Your task to perform on an android device: allow cookies in the chrome app Image 0: 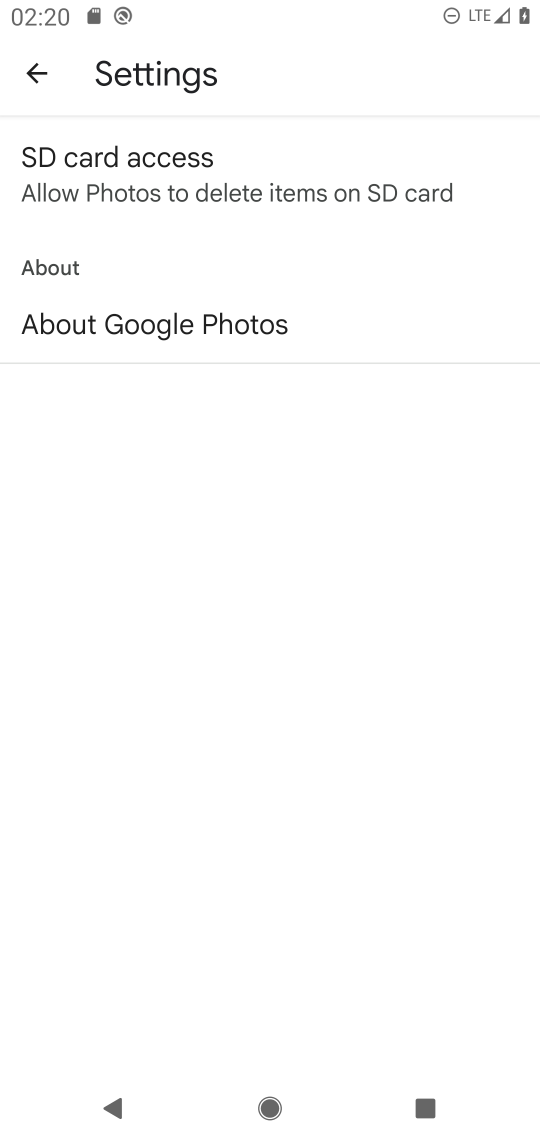
Step 0: press home button
Your task to perform on an android device: allow cookies in the chrome app Image 1: 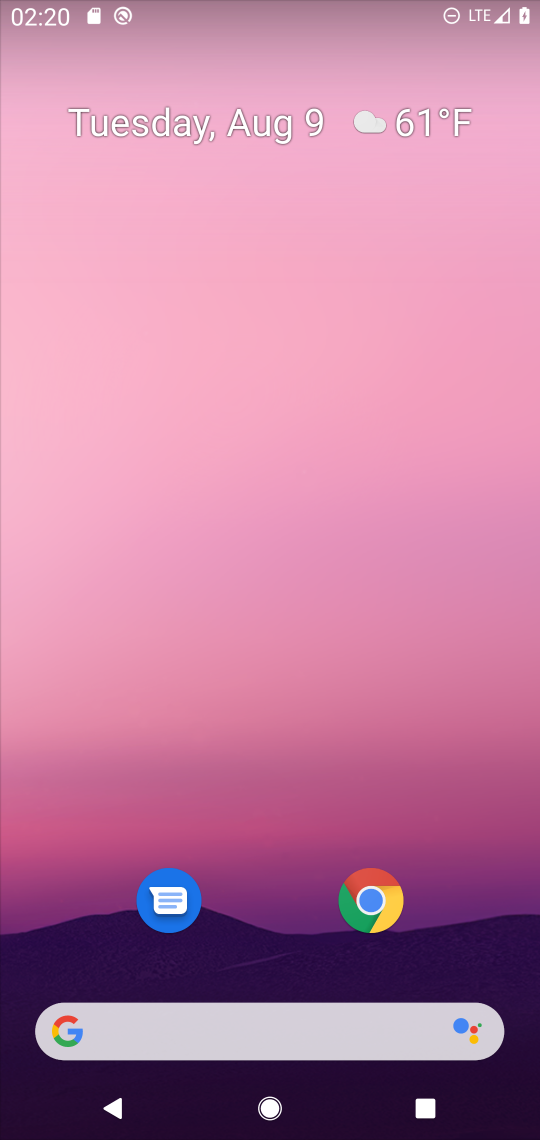
Step 1: drag from (265, 953) to (287, 188)
Your task to perform on an android device: allow cookies in the chrome app Image 2: 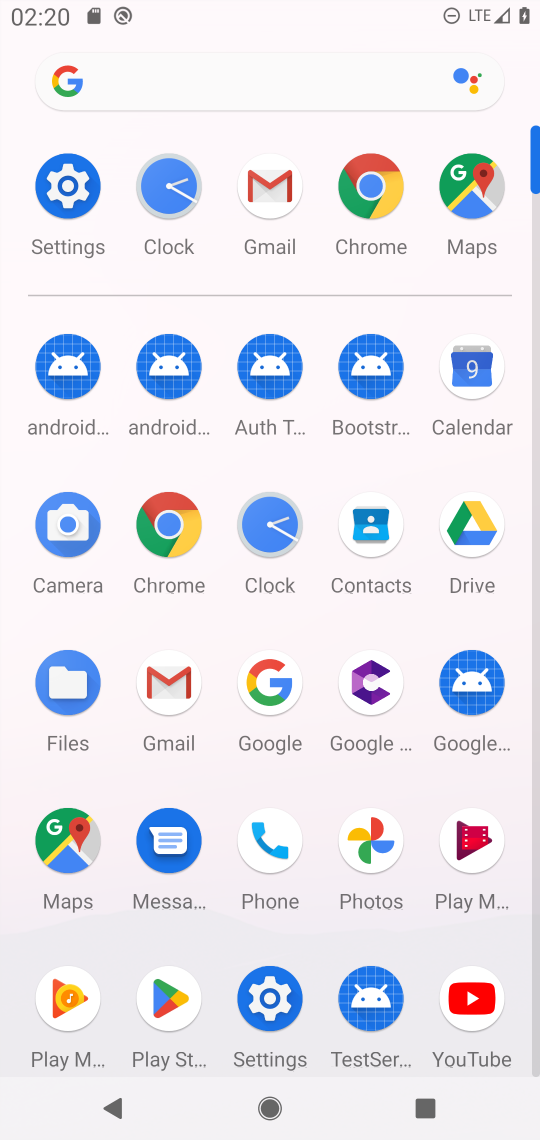
Step 2: click (163, 525)
Your task to perform on an android device: allow cookies in the chrome app Image 3: 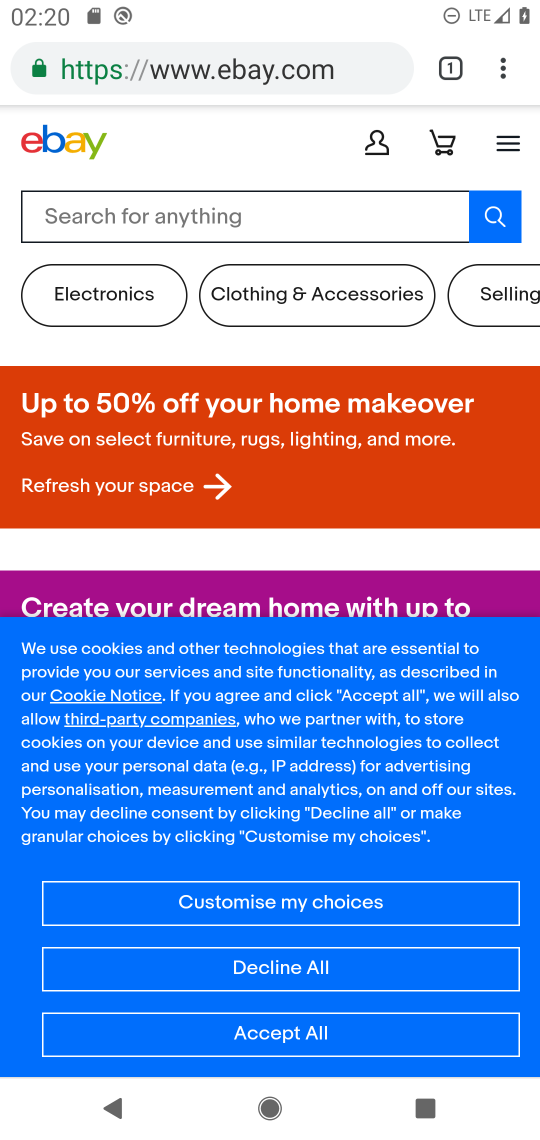
Step 3: click (505, 73)
Your task to perform on an android device: allow cookies in the chrome app Image 4: 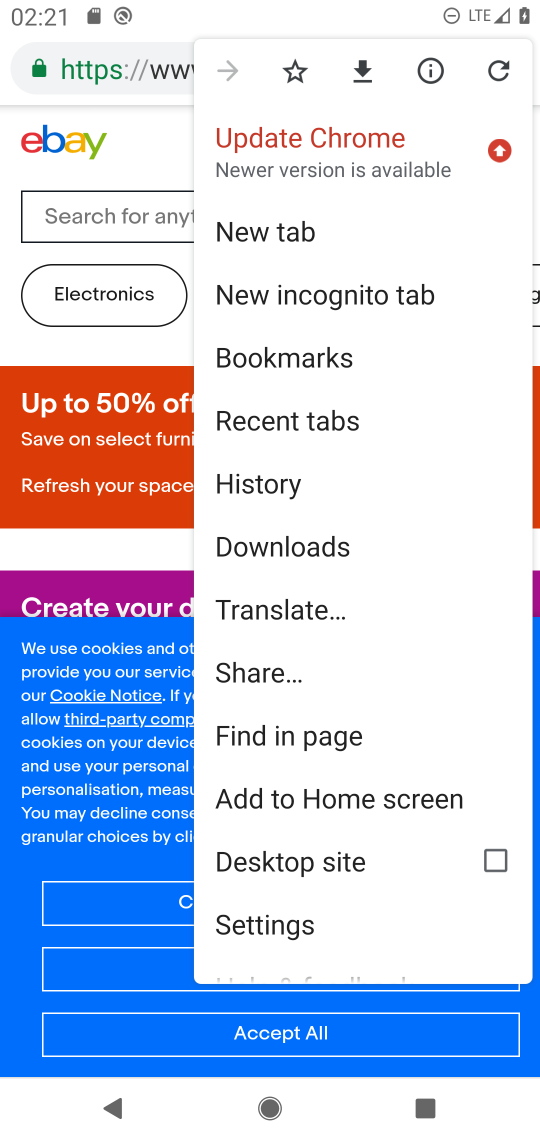
Step 4: click (270, 918)
Your task to perform on an android device: allow cookies in the chrome app Image 5: 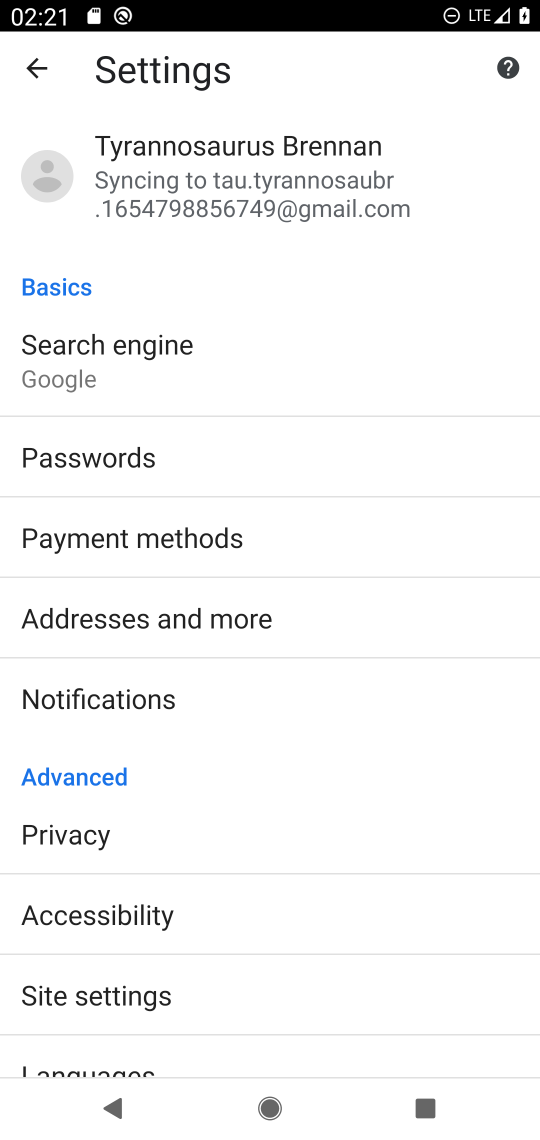
Step 5: drag from (322, 789) to (368, 561)
Your task to perform on an android device: allow cookies in the chrome app Image 6: 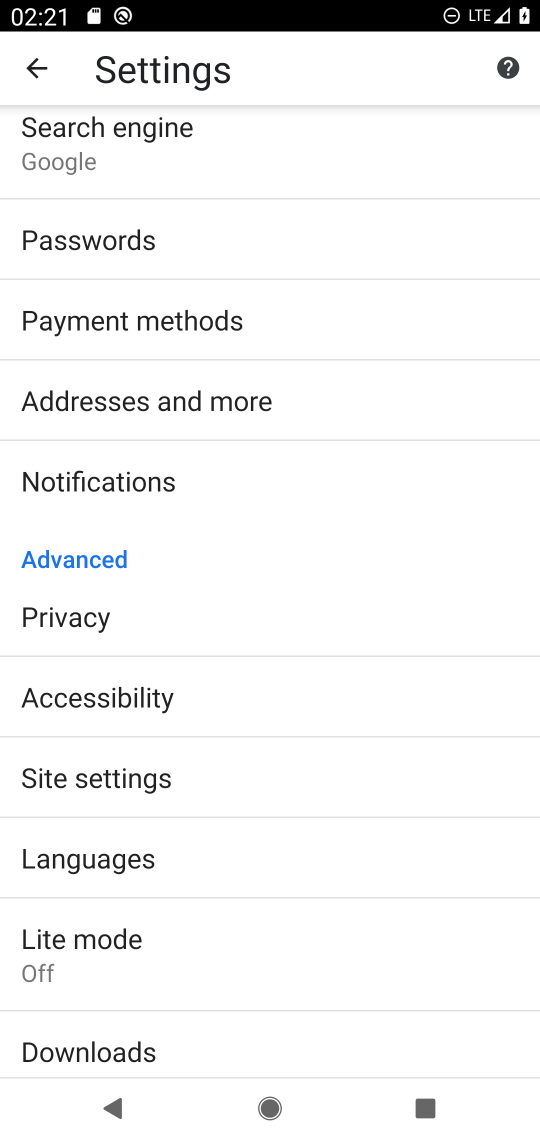
Step 6: click (370, 761)
Your task to perform on an android device: allow cookies in the chrome app Image 7: 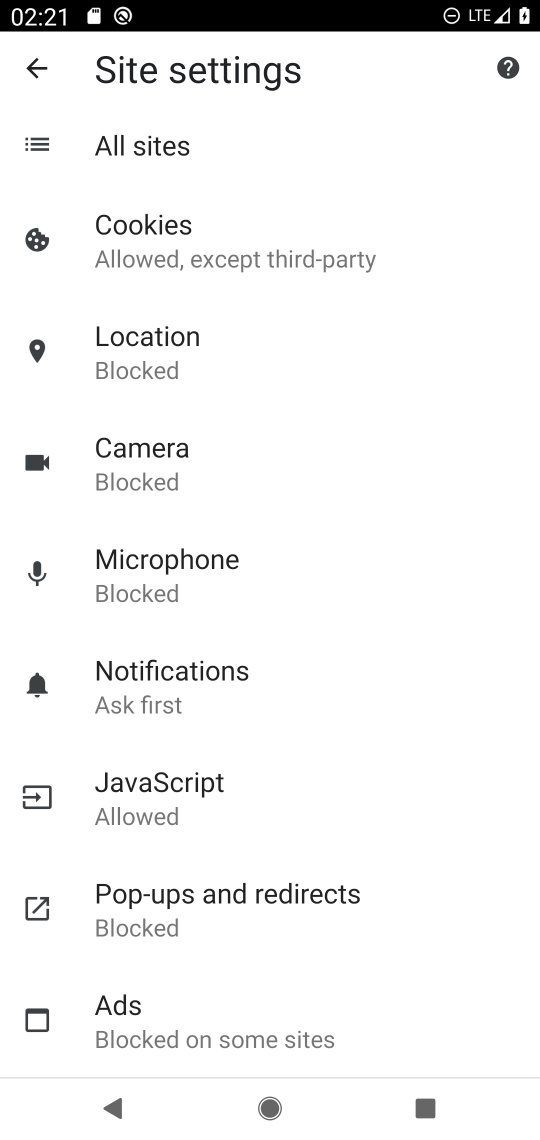
Step 7: drag from (448, 942) to (439, 697)
Your task to perform on an android device: allow cookies in the chrome app Image 8: 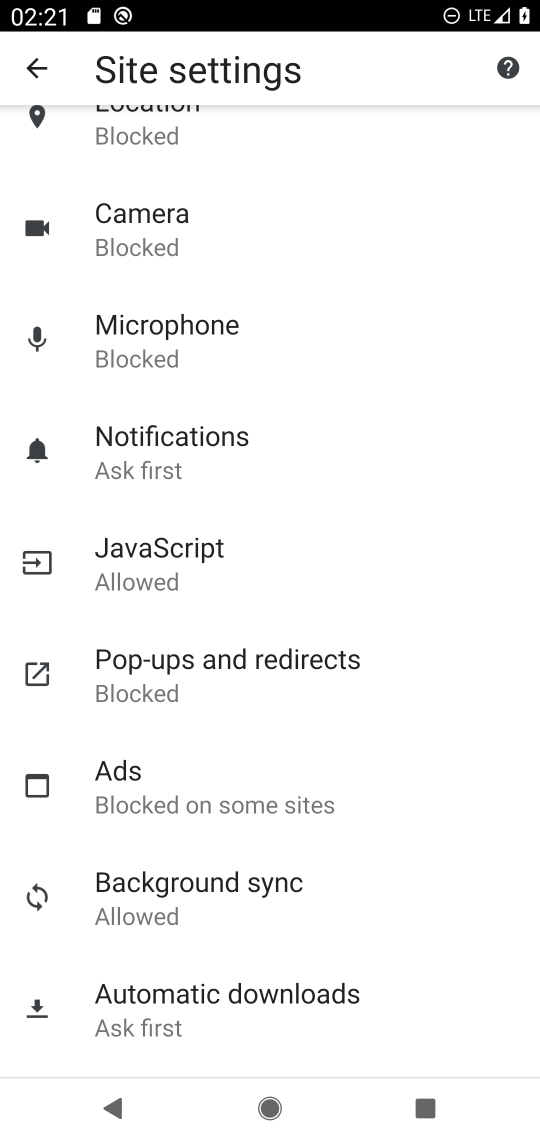
Step 8: drag from (438, 880) to (451, 715)
Your task to perform on an android device: allow cookies in the chrome app Image 9: 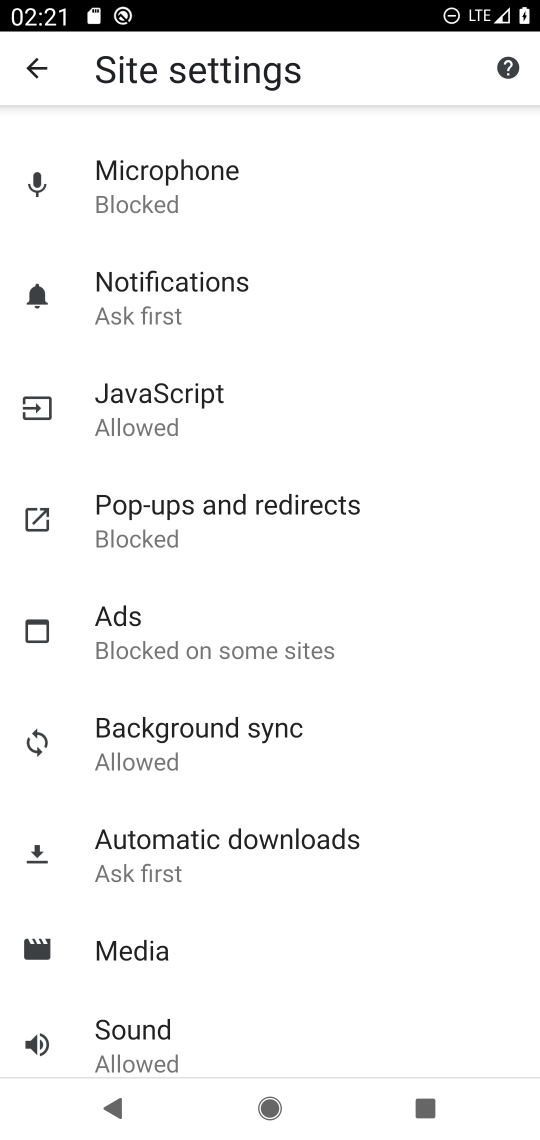
Step 9: drag from (436, 904) to (435, 698)
Your task to perform on an android device: allow cookies in the chrome app Image 10: 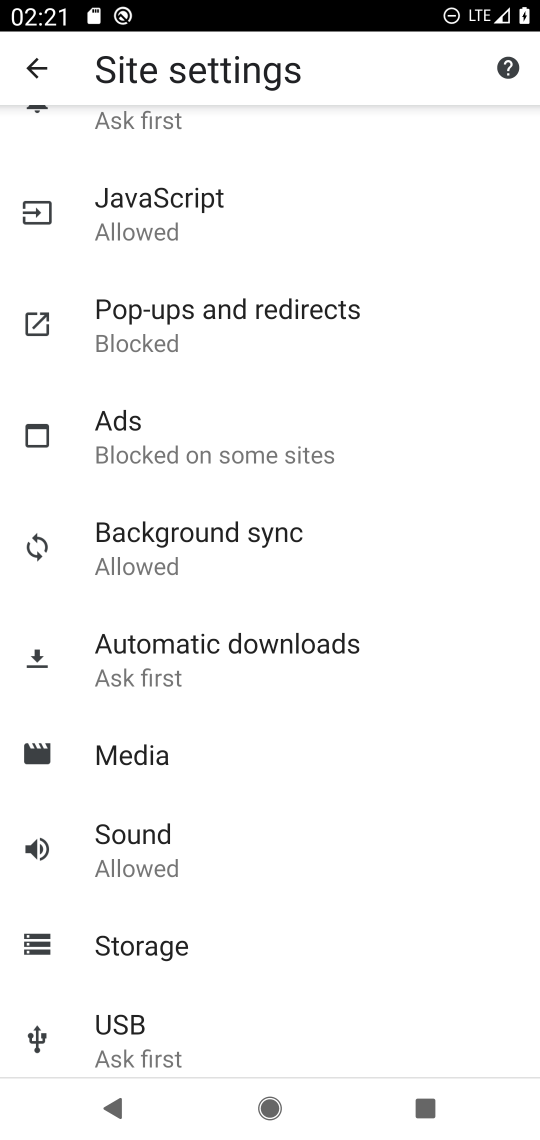
Step 10: drag from (425, 841) to (423, 630)
Your task to perform on an android device: allow cookies in the chrome app Image 11: 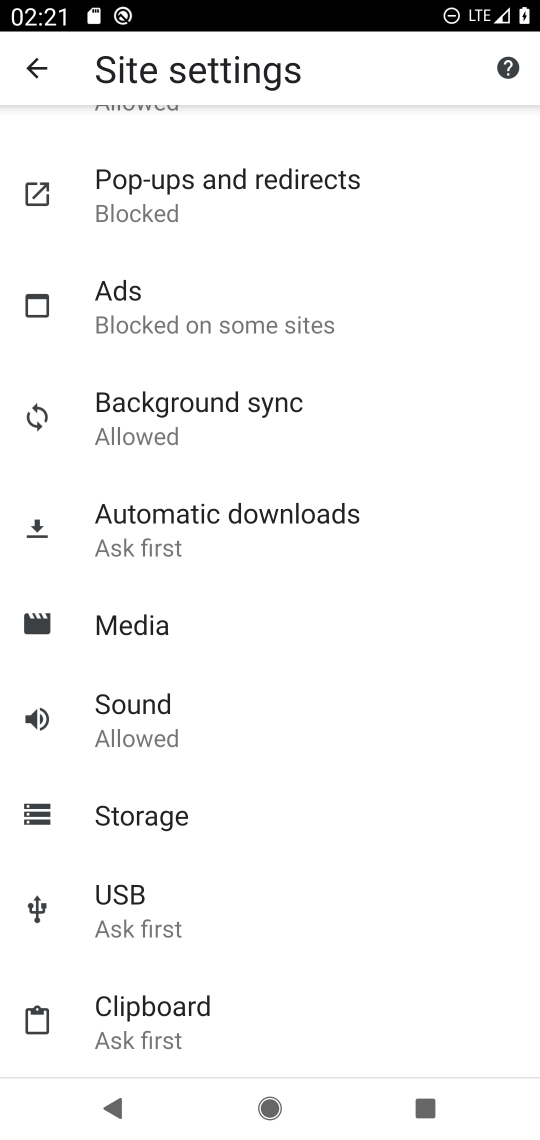
Step 11: drag from (444, 867) to (459, 533)
Your task to perform on an android device: allow cookies in the chrome app Image 12: 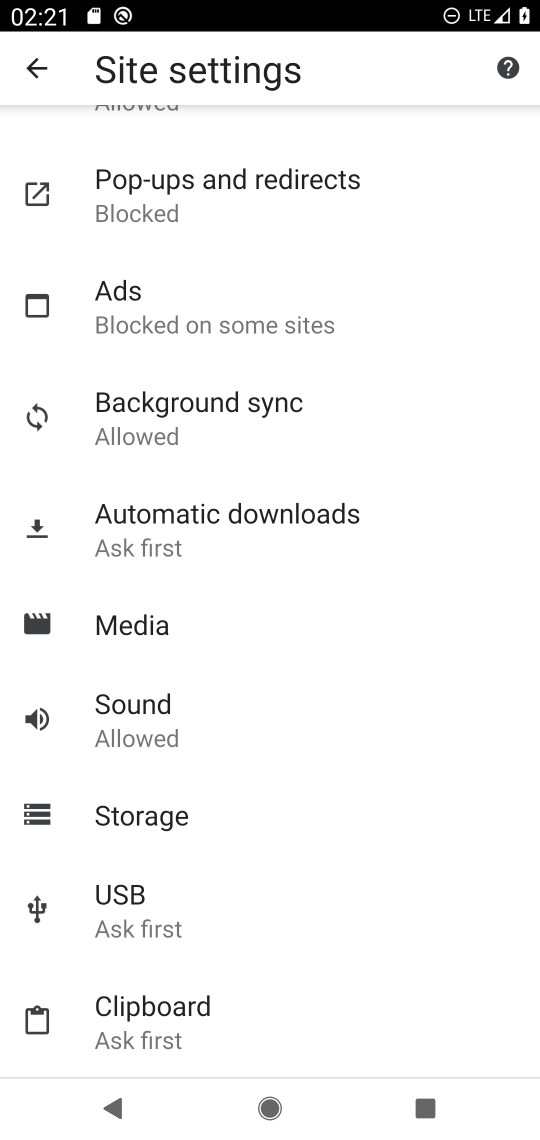
Step 12: drag from (440, 645) to (447, 435)
Your task to perform on an android device: allow cookies in the chrome app Image 13: 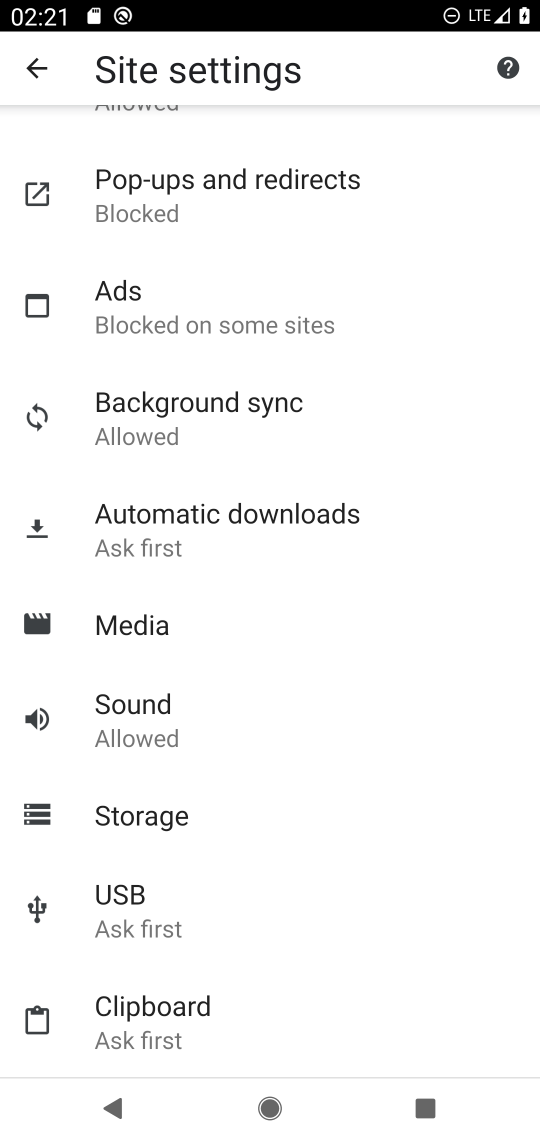
Step 13: drag from (457, 320) to (457, 528)
Your task to perform on an android device: allow cookies in the chrome app Image 14: 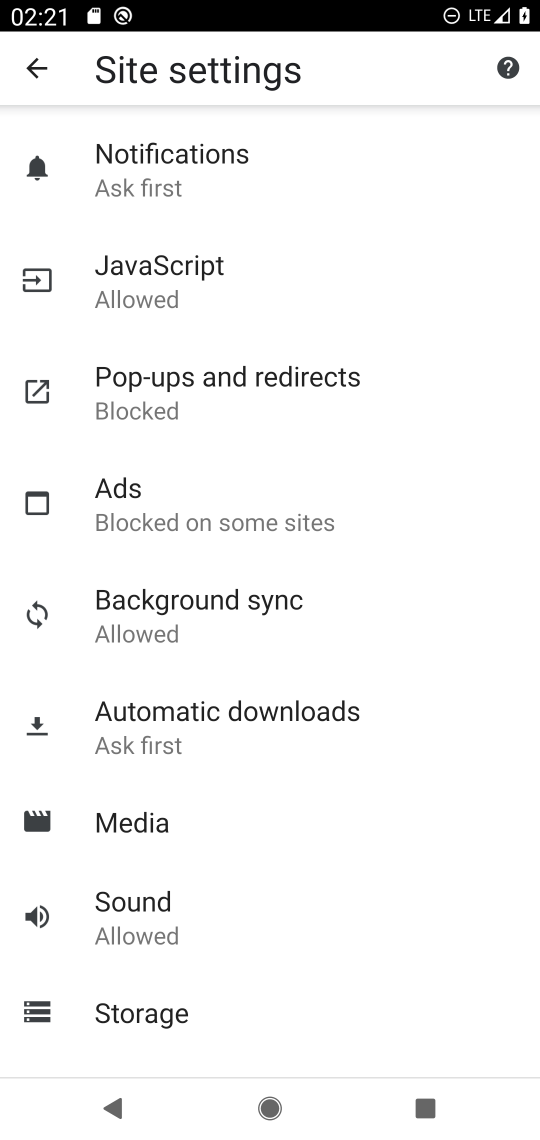
Step 14: drag from (469, 259) to (476, 505)
Your task to perform on an android device: allow cookies in the chrome app Image 15: 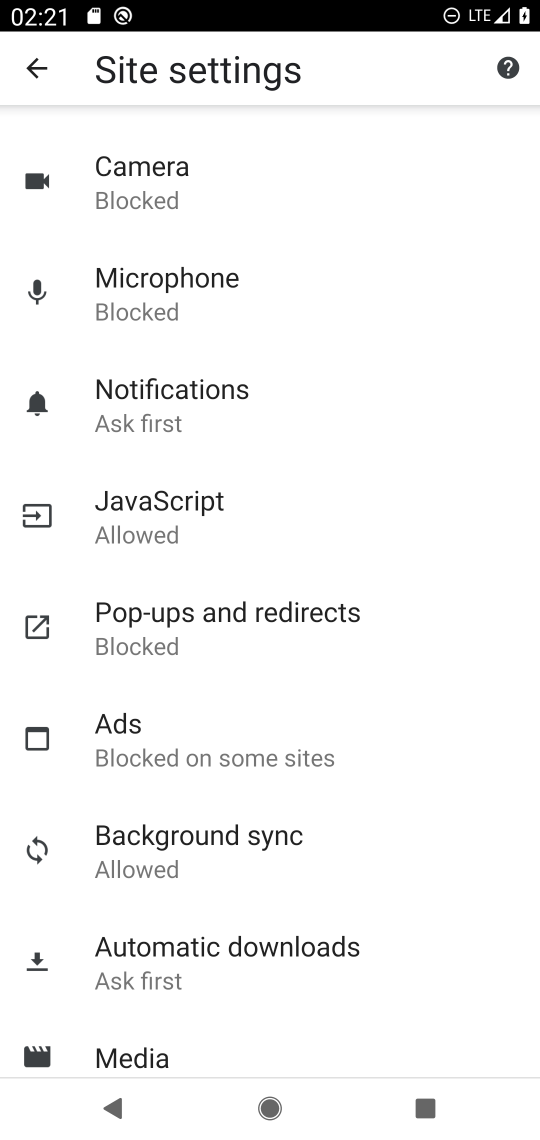
Step 15: drag from (475, 281) to (457, 566)
Your task to perform on an android device: allow cookies in the chrome app Image 16: 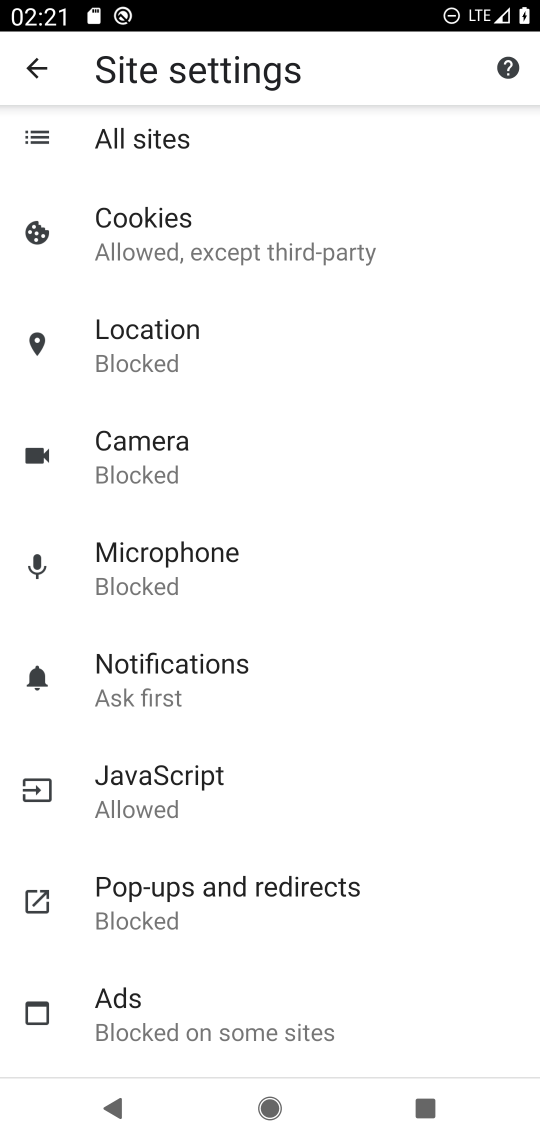
Step 16: drag from (460, 219) to (460, 519)
Your task to perform on an android device: allow cookies in the chrome app Image 17: 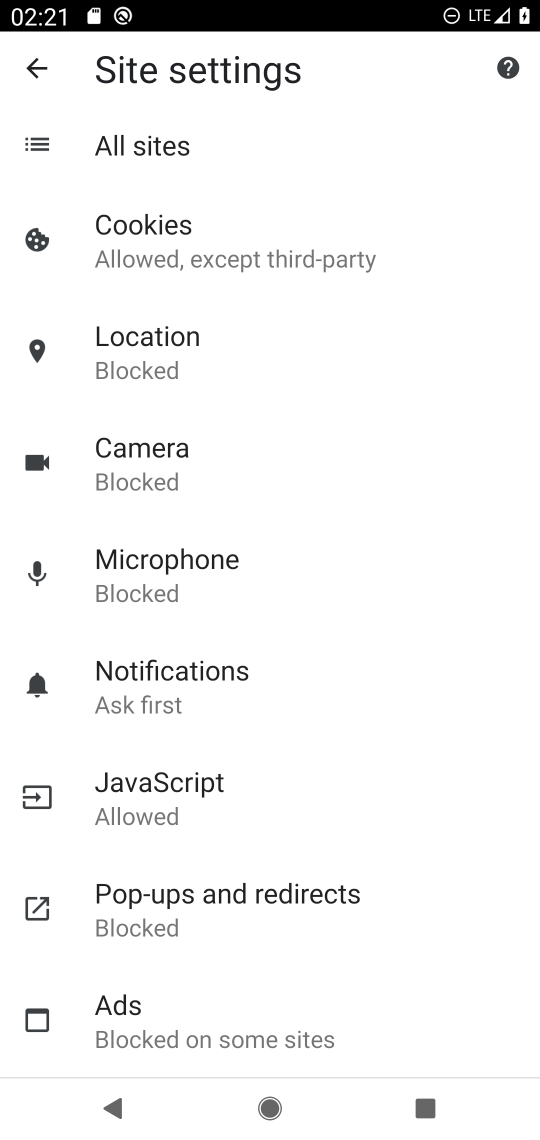
Step 17: click (340, 239)
Your task to perform on an android device: allow cookies in the chrome app Image 18: 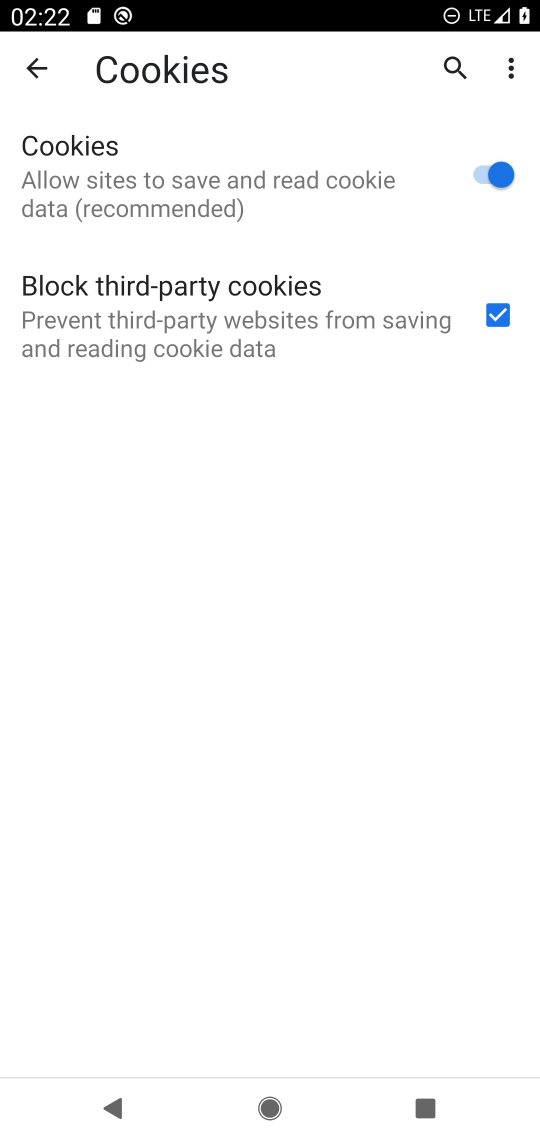
Step 18: task complete